Your task to perform on an android device: Open calendar and show me the first week of next month Image 0: 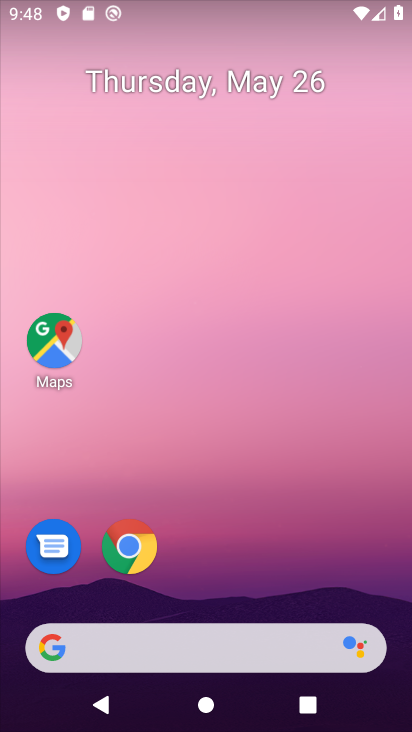
Step 0: drag from (282, 602) to (267, 75)
Your task to perform on an android device: Open calendar and show me the first week of next month Image 1: 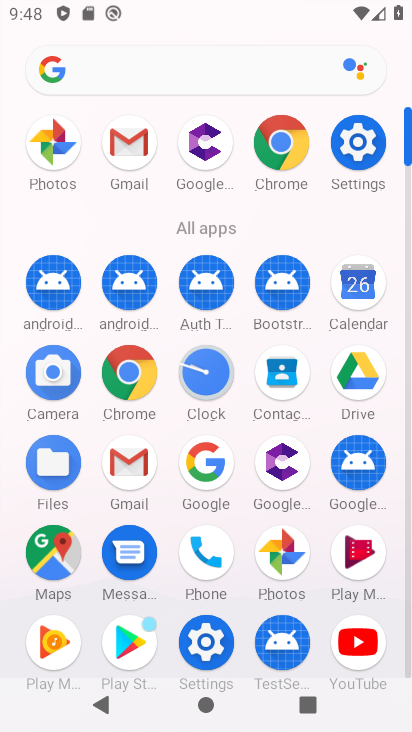
Step 1: click (345, 292)
Your task to perform on an android device: Open calendar and show me the first week of next month Image 2: 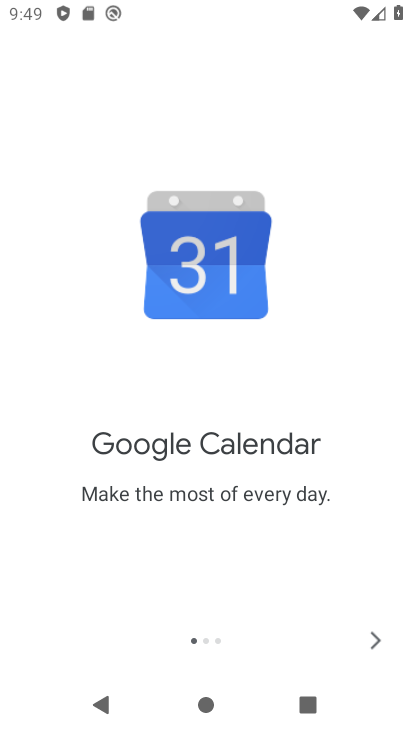
Step 2: click (370, 633)
Your task to perform on an android device: Open calendar and show me the first week of next month Image 3: 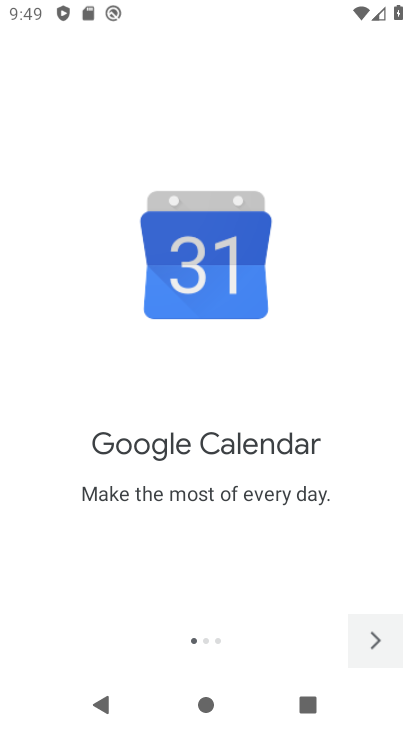
Step 3: click (370, 633)
Your task to perform on an android device: Open calendar and show me the first week of next month Image 4: 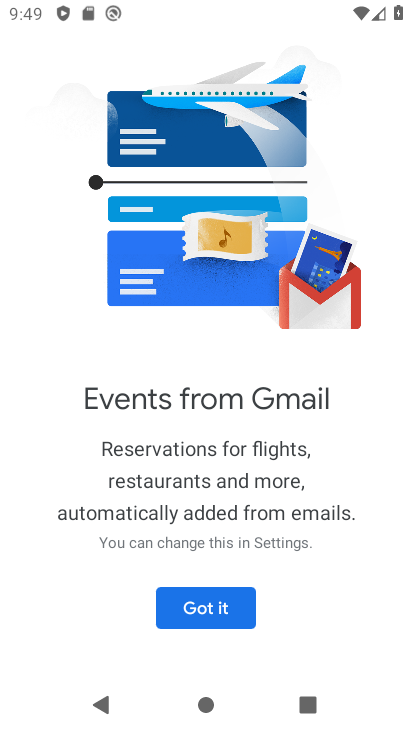
Step 4: click (213, 600)
Your task to perform on an android device: Open calendar and show me the first week of next month Image 5: 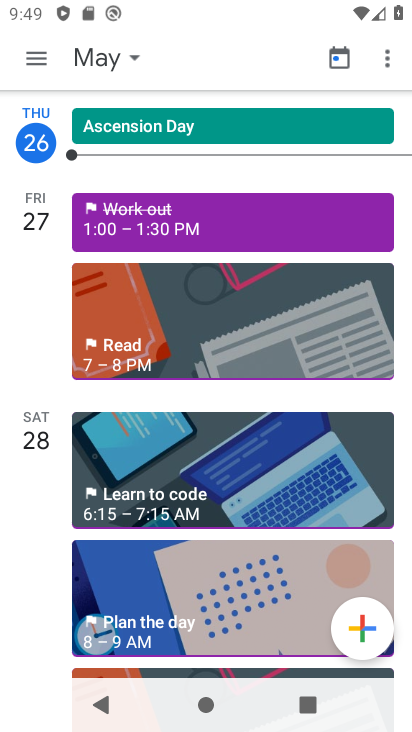
Step 5: click (31, 57)
Your task to perform on an android device: Open calendar and show me the first week of next month Image 6: 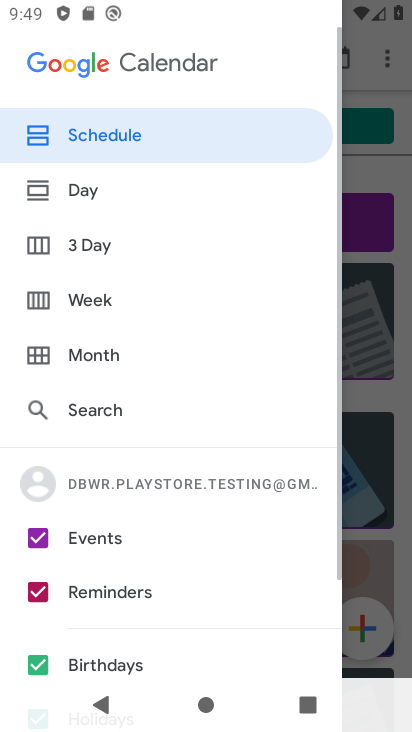
Step 6: click (110, 357)
Your task to perform on an android device: Open calendar and show me the first week of next month Image 7: 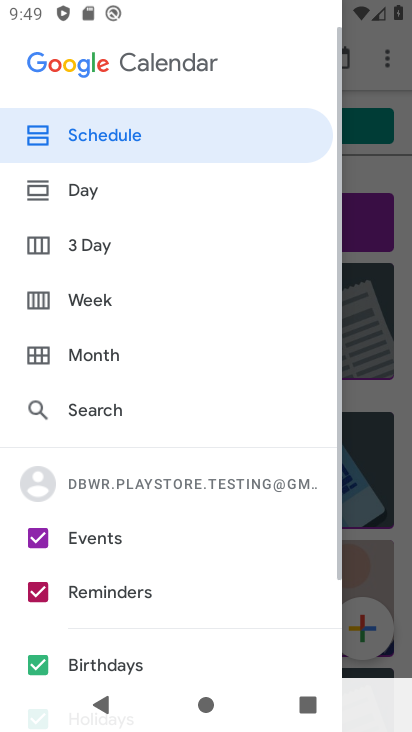
Step 7: click (78, 354)
Your task to perform on an android device: Open calendar and show me the first week of next month Image 8: 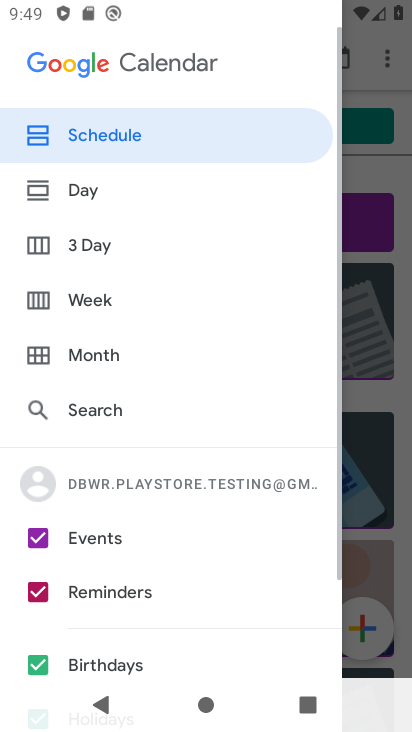
Step 8: click (363, 77)
Your task to perform on an android device: Open calendar and show me the first week of next month Image 9: 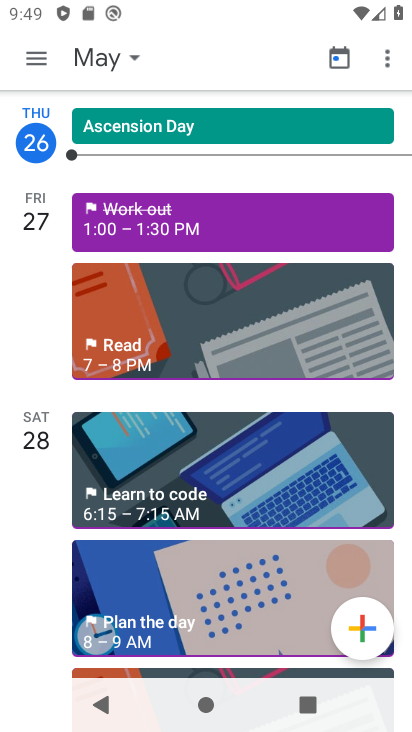
Step 9: click (93, 64)
Your task to perform on an android device: Open calendar and show me the first week of next month Image 10: 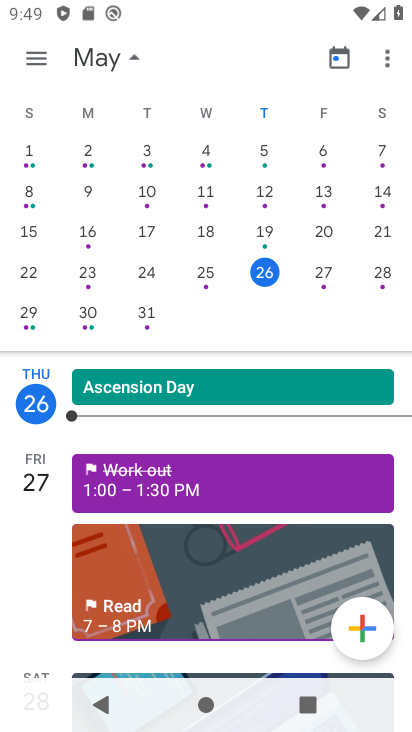
Step 10: drag from (334, 219) to (5, 159)
Your task to perform on an android device: Open calendar and show me the first week of next month Image 11: 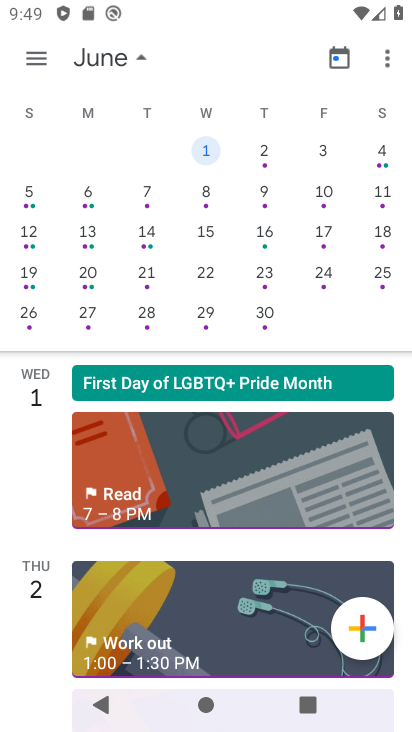
Step 11: click (383, 210)
Your task to perform on an android device: Open calendar and show me the first week of next month Image 12: 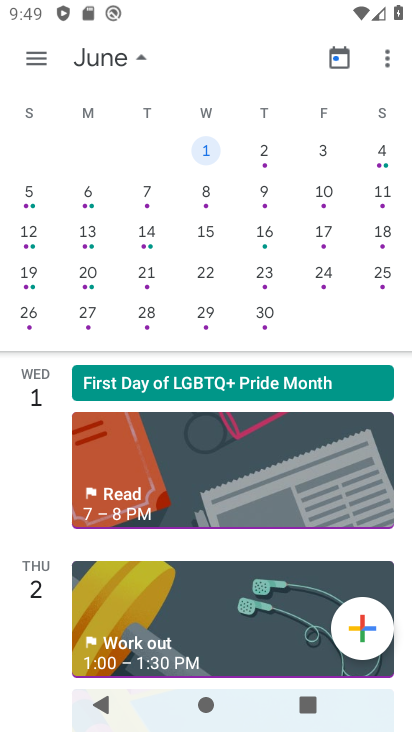
Step 12: click (9, 362)
Your task to perform on an android device: Open calendar and show me the first week of next month Image 13: 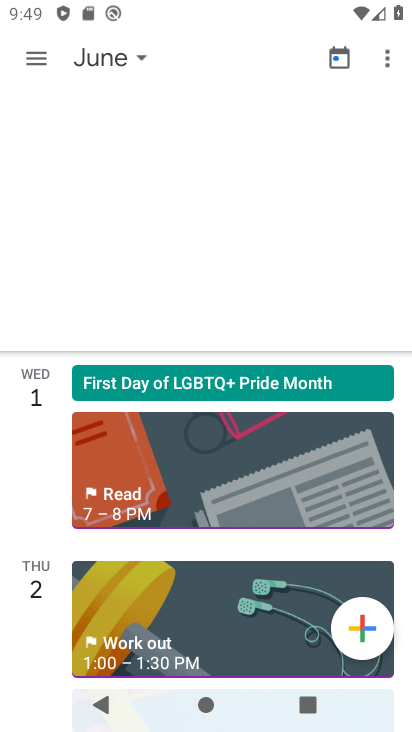
Step 13: task complete